Your task to perform on an android device: turn on airplane mode Image 0: 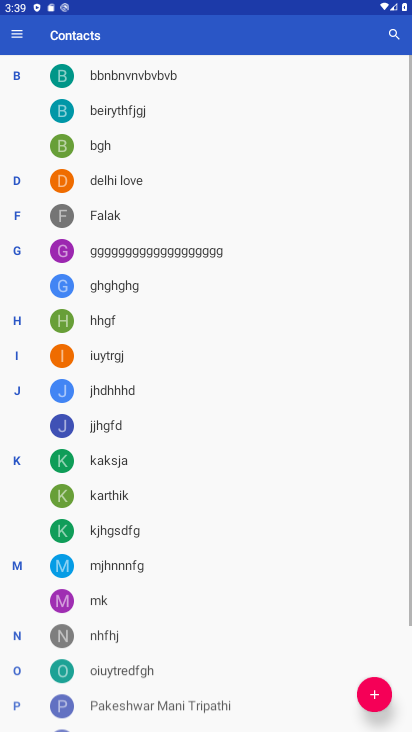
Step 0: click (76, 415)
Your task to perform on an android device: turn on airplane mode Image 1: 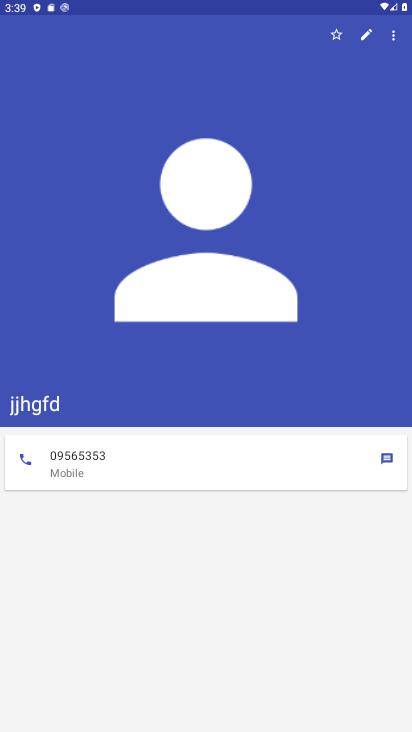
Step 1: press home button
Your task to perform on an android device: turn on airplane mode Image 2: 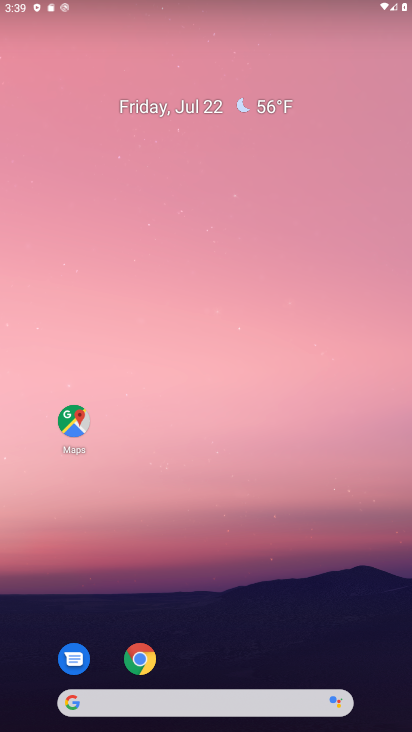
Step 2: drag from (173, 659) to (173, 189)
Your task to perform on an android device: turn on airplane mode Image 3: 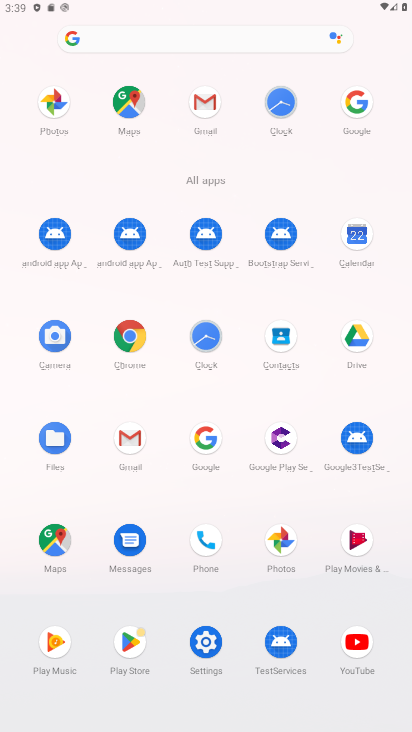
Step 3: click (229, 642)
Your task to perform on an android device: turn on airplane mode Image 4: 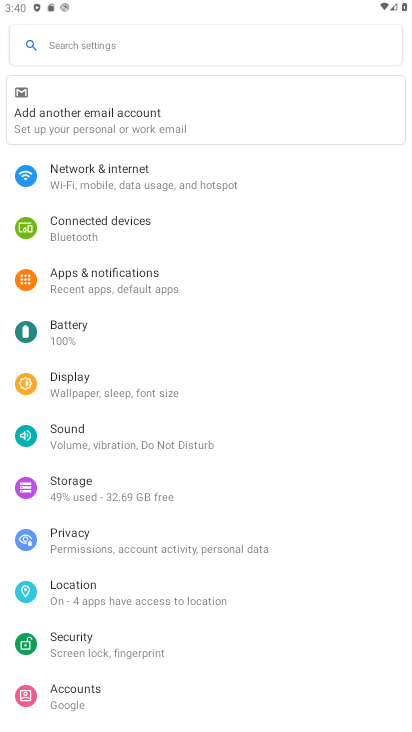
Step 4: click (64, 175)
Your task to perform on an android device: turn on airplane mode Image 5: 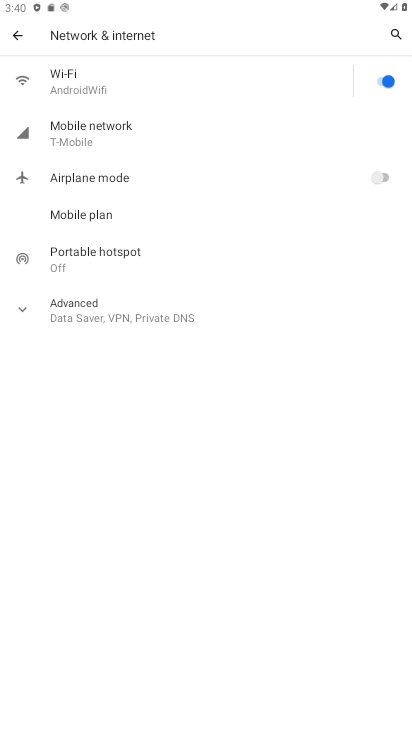
Step 5: click (388, 173)
Your task to perform on an android device: turn on airplane mode Image 6: 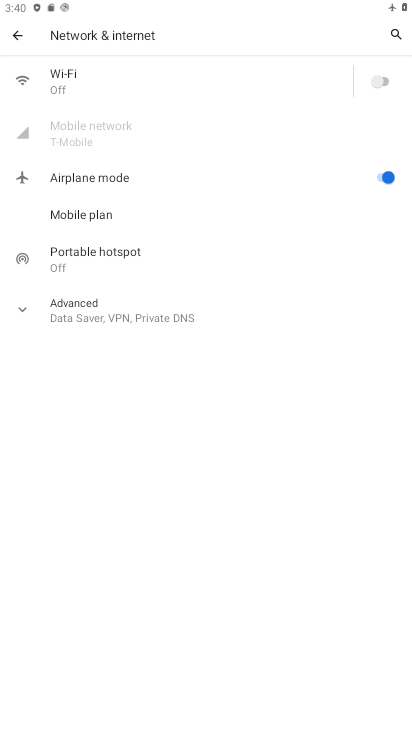
Step 6: task complete